Your task to perform on an android device: empty trash in google photos Image 0: 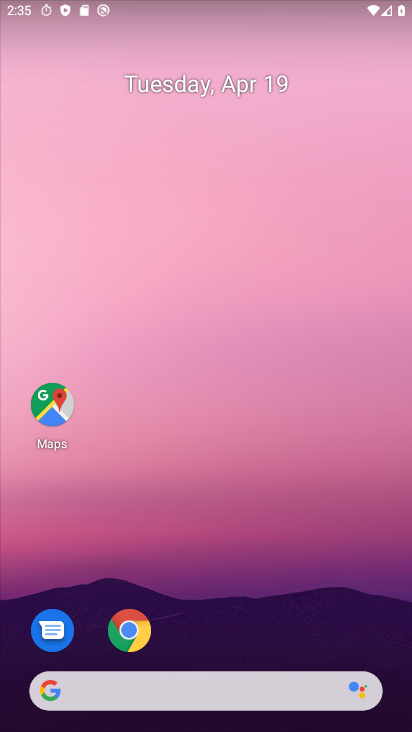
Step 0: drag from (246, 617) to (253, 94)
Your task to perform on an android device: empty trash in google photos Image 1: 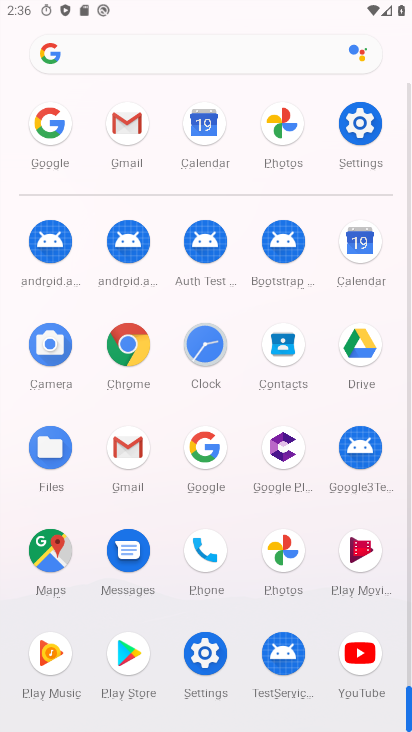
Step 1: click (294, 552)
Your task to perform on an android device: empty trash in google photos Image 2: 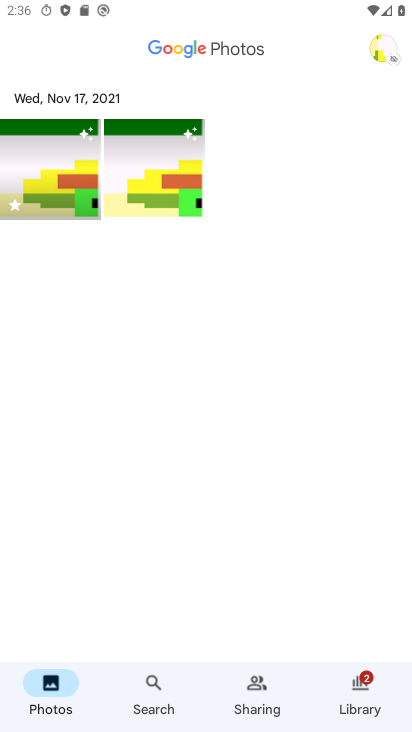
Step 2: click (290, 551)
Your task to perform on an android device: empty trash in google photos Image 3: 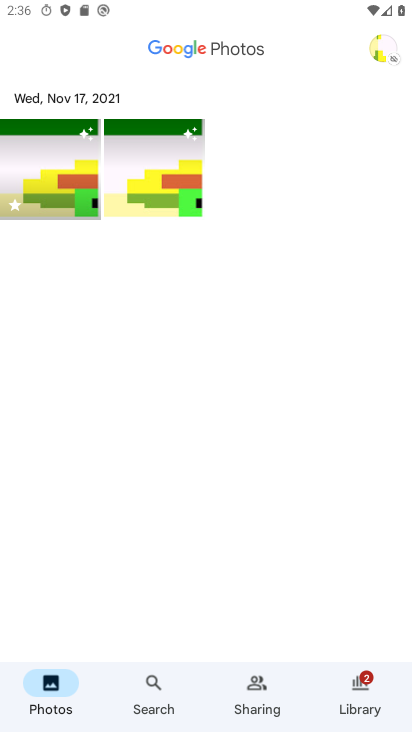
Step 3: click (358, 696)
Your task to perform on an android device: empty trash in google photos Image 4: 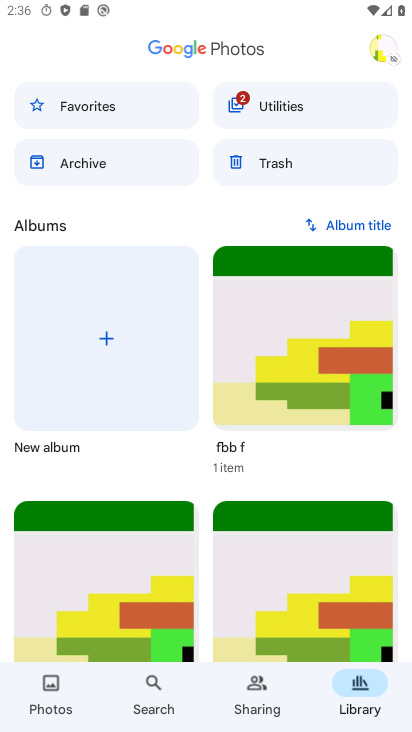
Step 4: click (302, 156)
Your task to perform on an android device: empty trash in google photos Image 5: 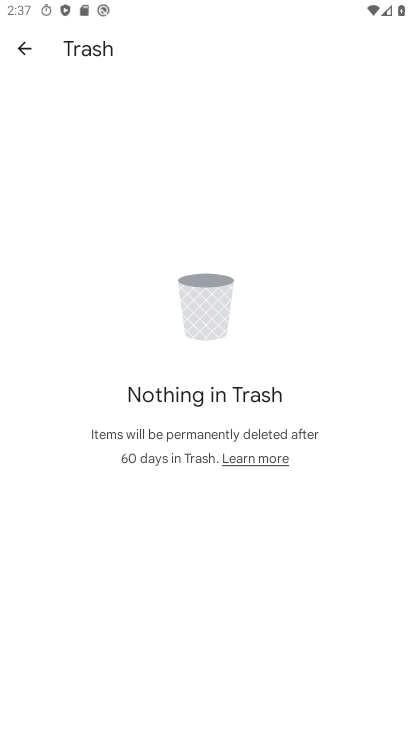
Step 5: task complete